Your task to perform on an android device: Open the web browser Image 0: 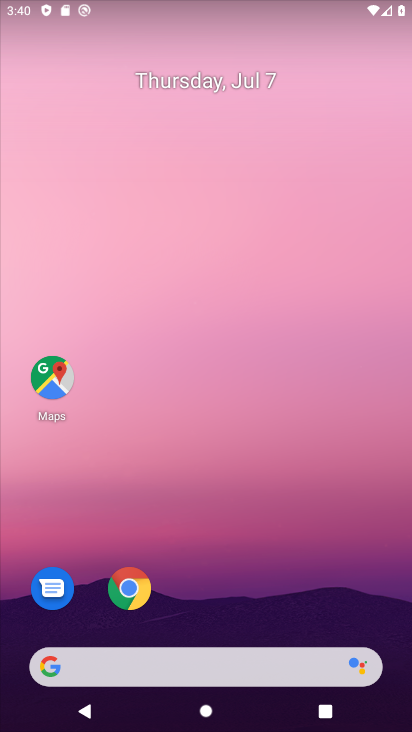
Step 0: press home button
Your task to perform on an android device: Open the web browser Image 1: 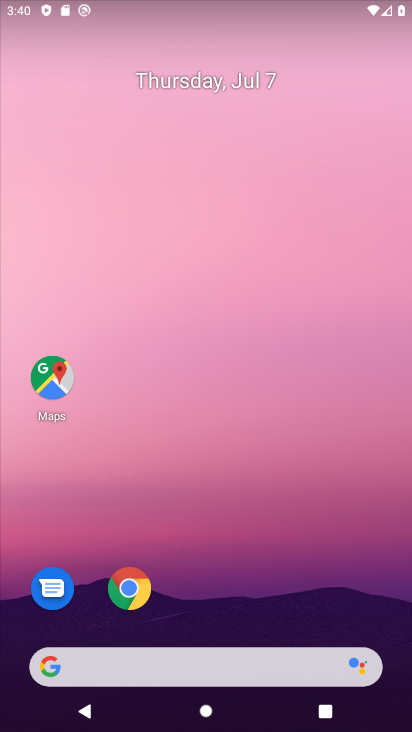
Step 1: click (46, 671)
Your task to perform on an android device: Open the web browser Image 2: 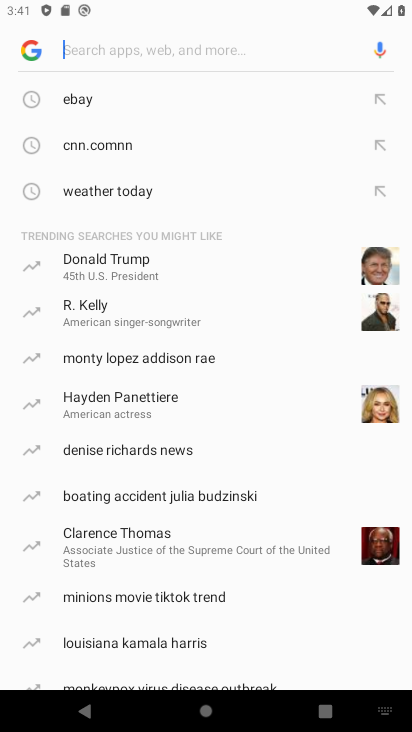
Step 2: task complete